Your task to perform on an android device: turn on sleep mode Image 0: 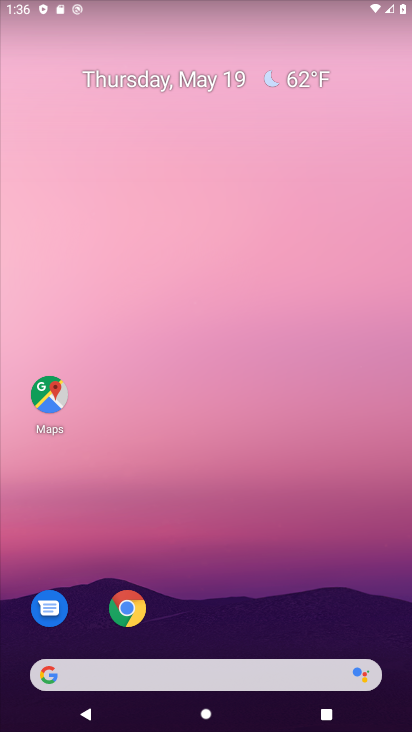
Step 0: drag from (285, 601) to (222, 89)
Your task to perform on an android device: turn on sleep mode Image 1: 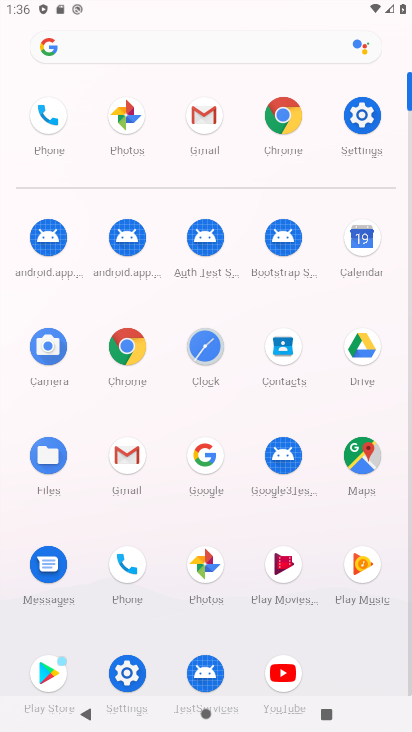
Step 1: click (343, 128)
Your task to perform on an android device: turn on sleep mode Image 2: 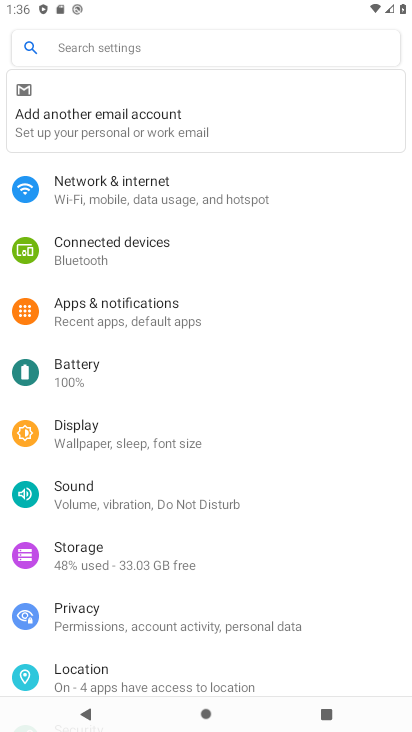
Step 2: click (188, 503)
Your task to perform on an android device: turn on sleep mode Image 3: 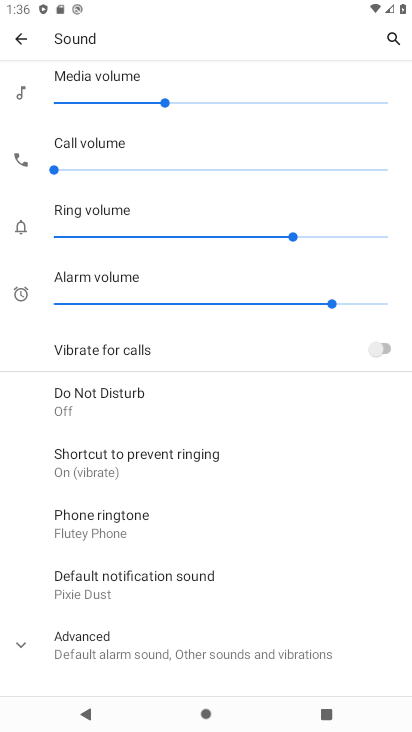
Step 3: click (24, 41)
Your task to perform on an android device: turn on sleep mode Image 4: 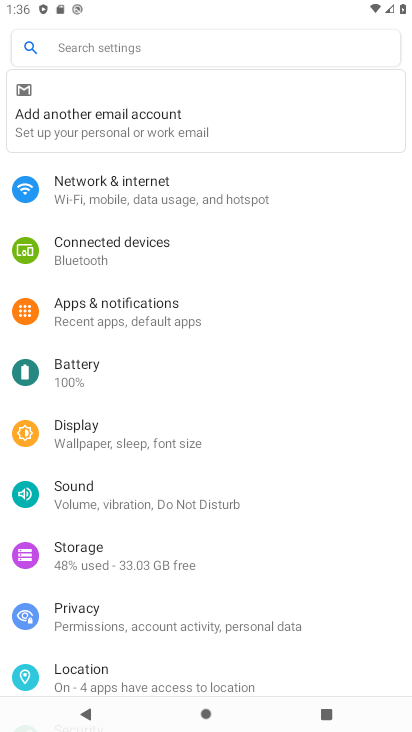
Step 4: click (103, 432)
Your task to perform on an android device: turn on sleep mode Image 5: 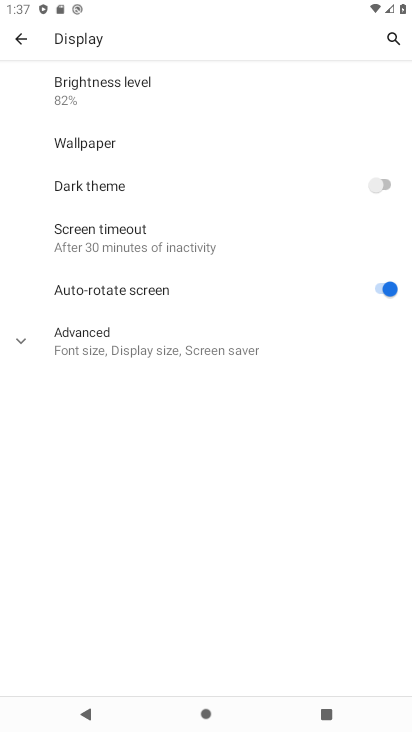
Step 5: click (275, 342)
Your task to perform on an android device: turn on sleep mode Image 6: 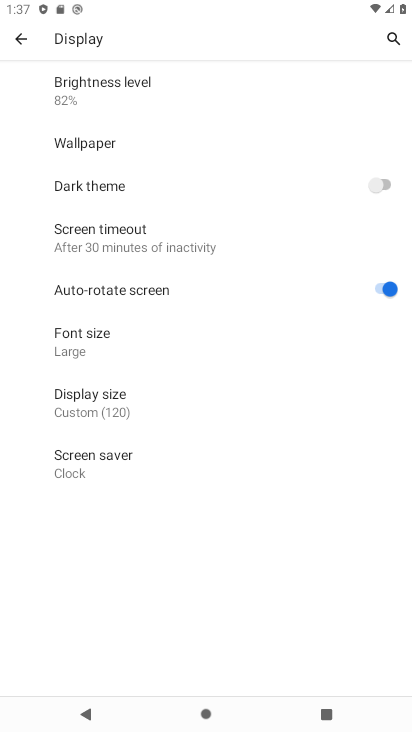
Step 6: click (166, 246)
Your task to perform on an android device: turn on sleep mode Image 7: 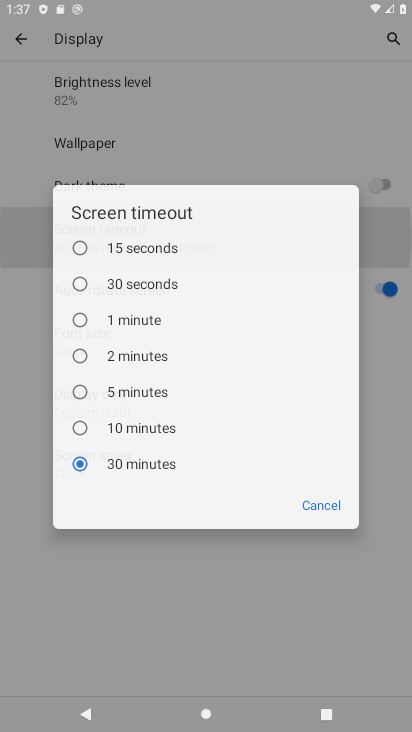
Step 7: click (166, 246)
Your task to perform on an android device: turn on sleep mode Image 8: 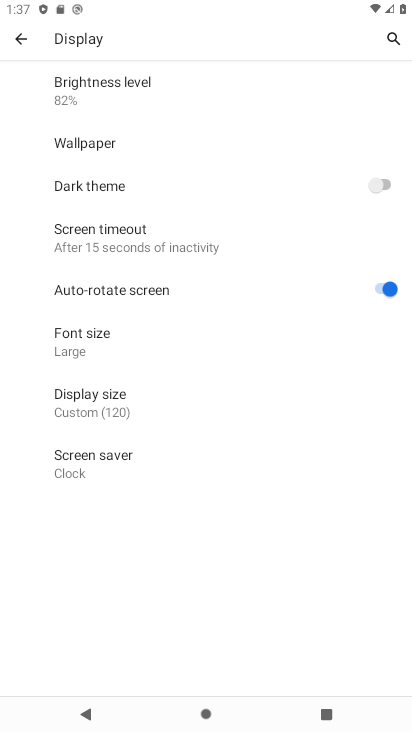
Step 8: task complete